Your task to perform on an android device: Open privacy settings Image 0: 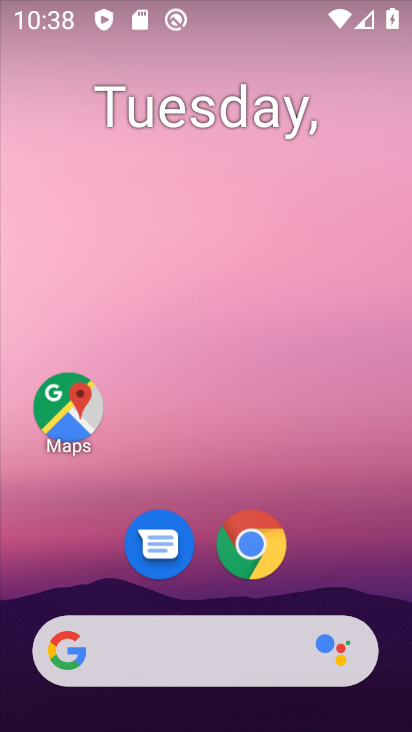
Step 0: drag from (405, 637) to (280, 62)
Your task to perform on an android device: Open privacy settings Image 1: 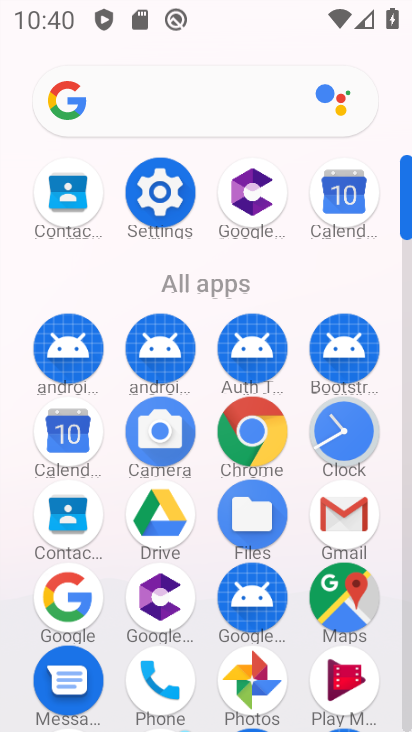
Step 1: click (175, 204)
Your task to perform on an android device: Open privacy settings Image 2: 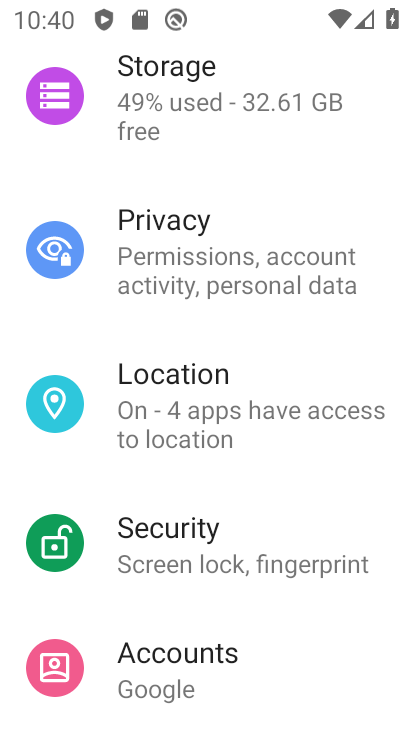
Step 2: click (248, 254)
Your task to perform on an android device: Open privacy settings Image 3: 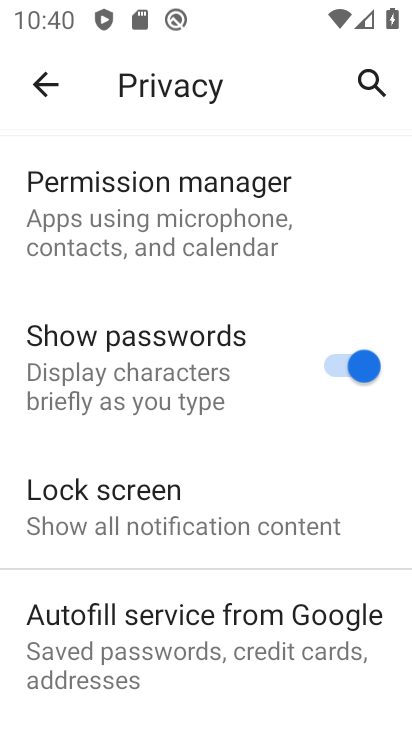
Step 3: task complete